Your task to perform on an android device: When is my next appointment? Image 0: 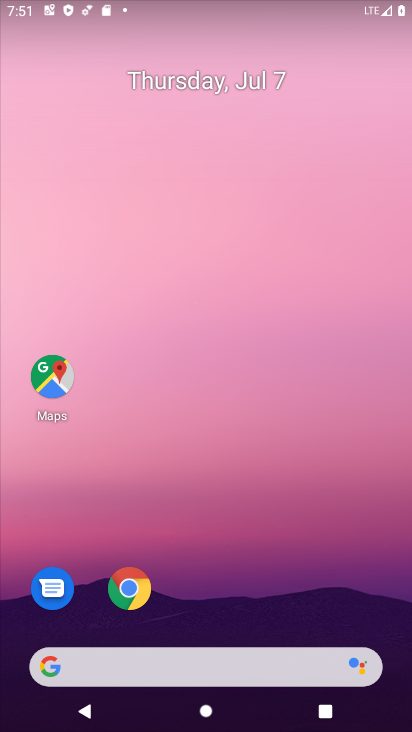
Step 0: drag from (223, 618) to (202, 162)
Your task to perform on an android device: When is my next appointment? Image 1: 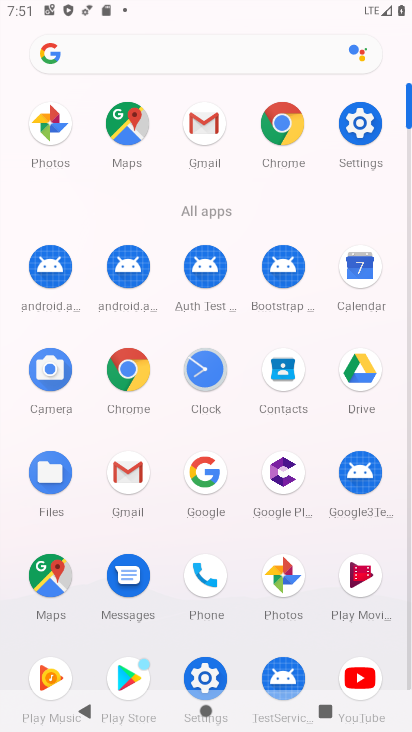
Step 1: click (354, 277)
Your task to perform on an android device: When is my next appointment? Image 2: 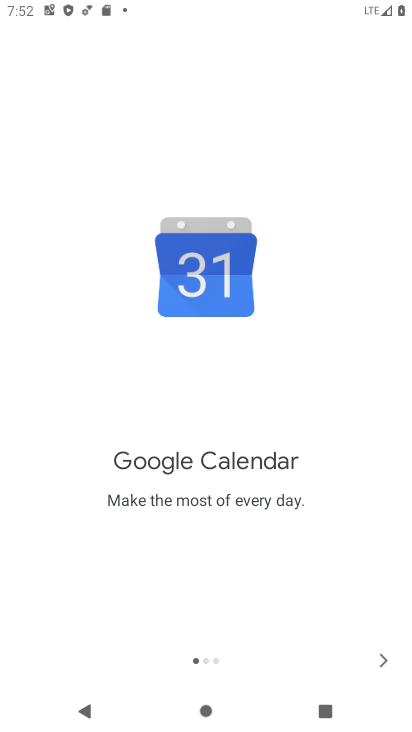
Step 2: click (365, 655)
Your task to perform on an android device: When is my next appointment? Image 3: 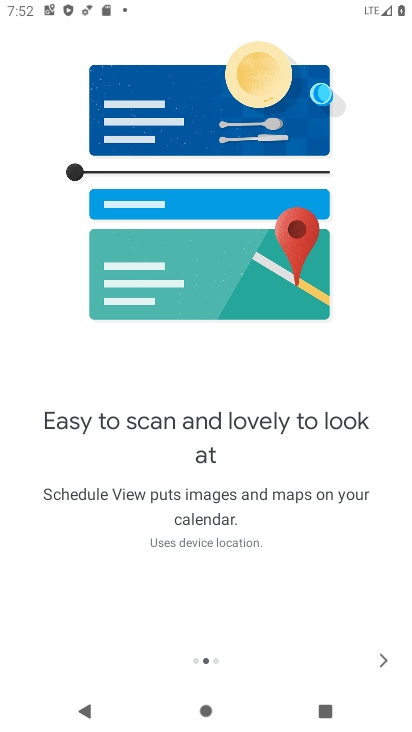
Step 3: click (380, 664)
Your task to perform on an android device: When is my next appointment? Image 4: 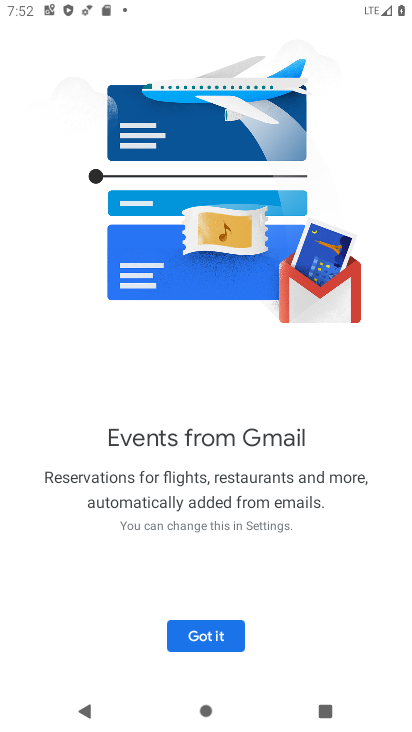
Step 4: click (229, 631)
Your task to perform on an android device: When is my next appointment? Image 5: 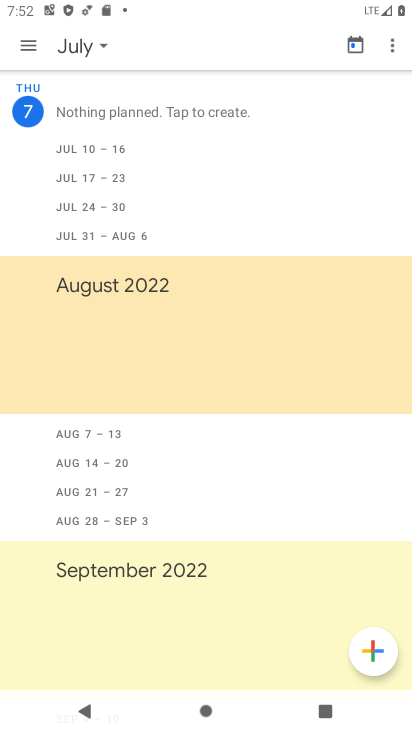
Step 5: click (81, 150)
Your task to perform on an android device: When is my next appointment? Image 6: 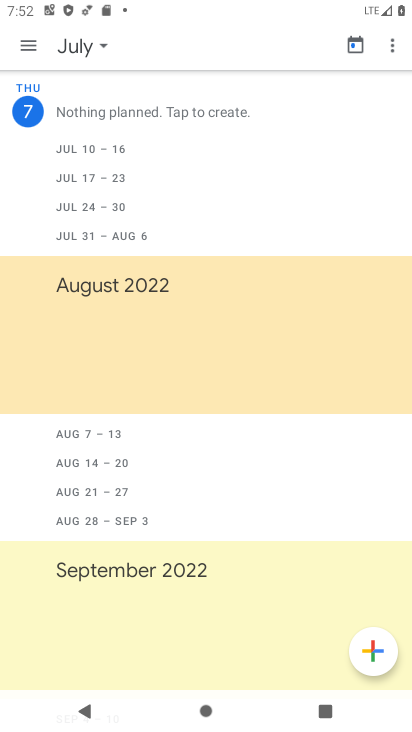
Step 6: click (81, 150)
Your task to perform on an android device: When is my next appointment? Image 7: 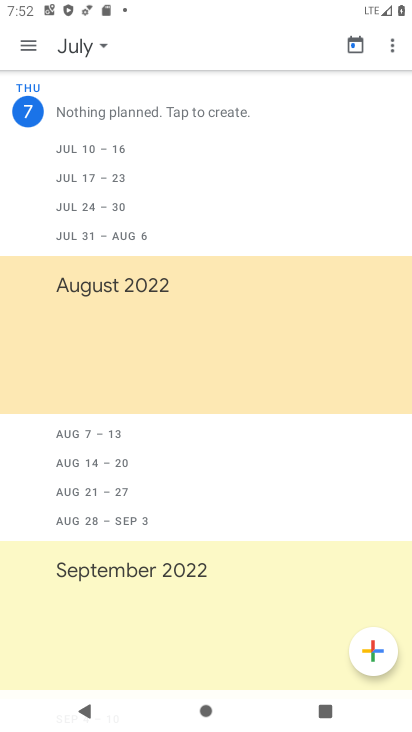
Step 7: click (29, 36)
Your task to perform on an android device: When is my next appointment? Image 8: 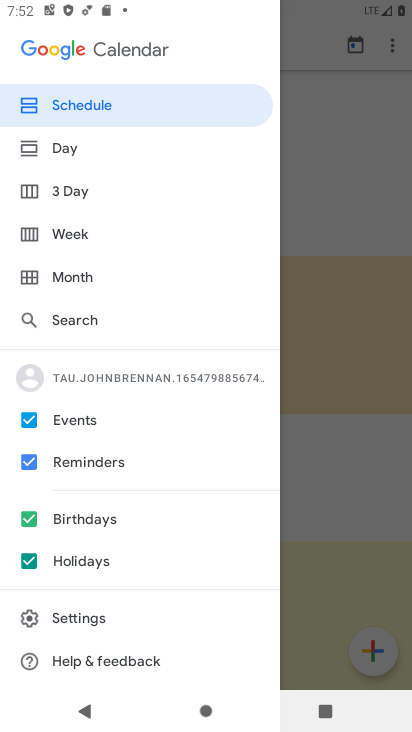
Step 8: click (73, 153)
Your task to perform on an android device: When is my next appointment? Image 9: 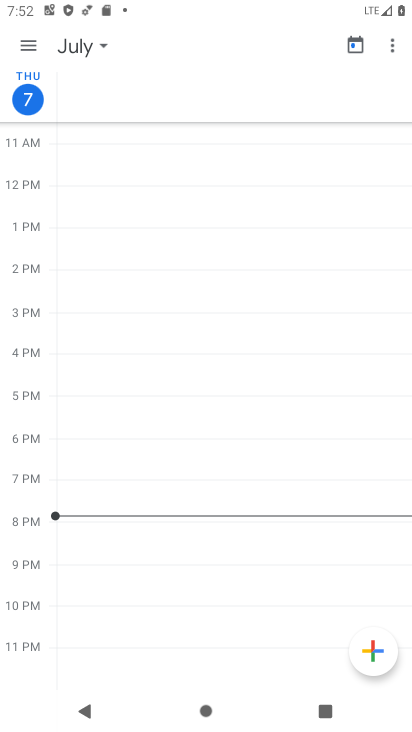
Step 9: click (31, 46)
Your task to perform on an android device: When is my next appointment? Image 10: 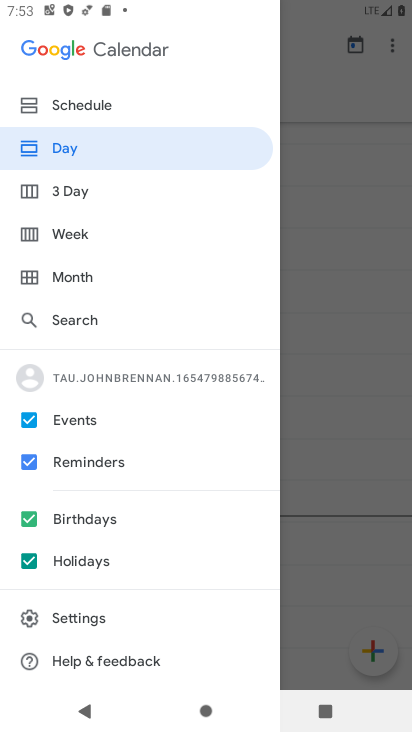
Step 10: click (94, 258)
Your task to perform on an android device: When is my next appointment? Image 11: 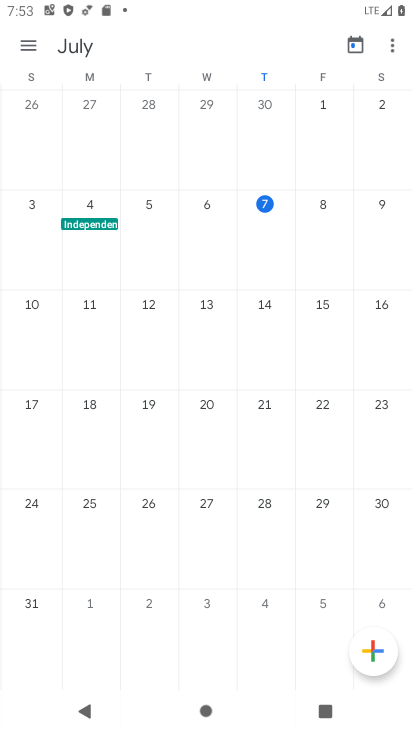
Step 11: click (326, 225)
Your task to perform on an android device: When is my next appointment? Image 12: 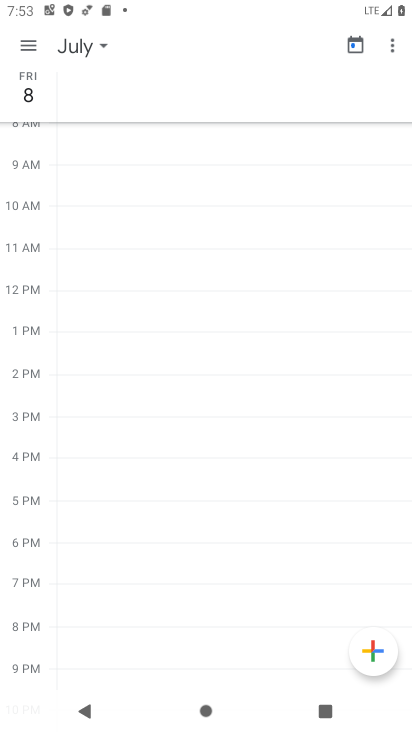
Step 12: task complete